Your task to perform on an android device: Search for the best-rated coffee table on Crate & Barrel Image 0: 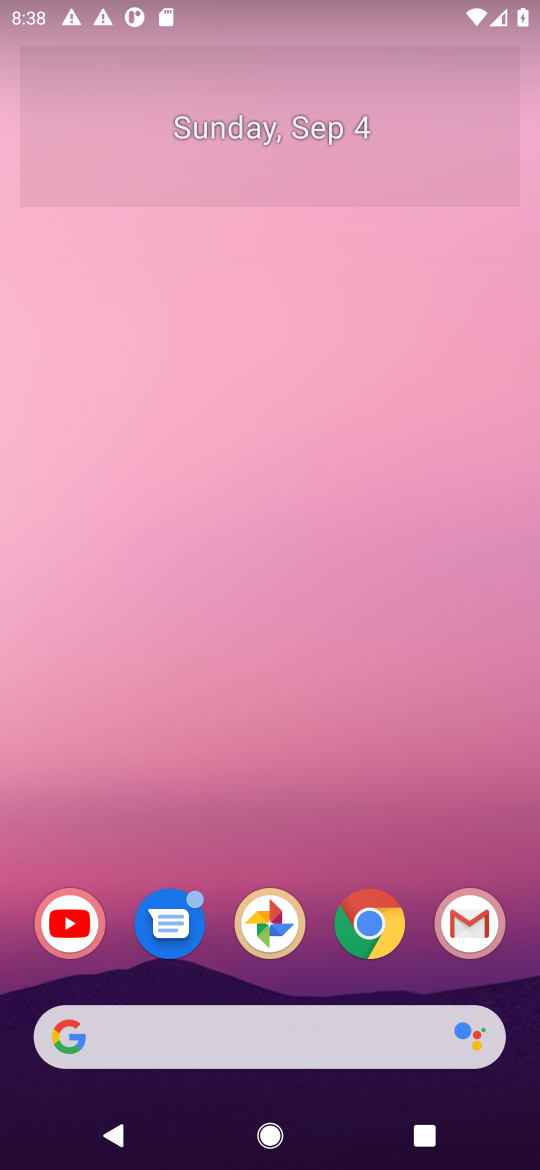
Step 0: click (365, 952)
Your task to perform on an android device: Search for the best-rated coffee table on Crate & Barrel Image 1: 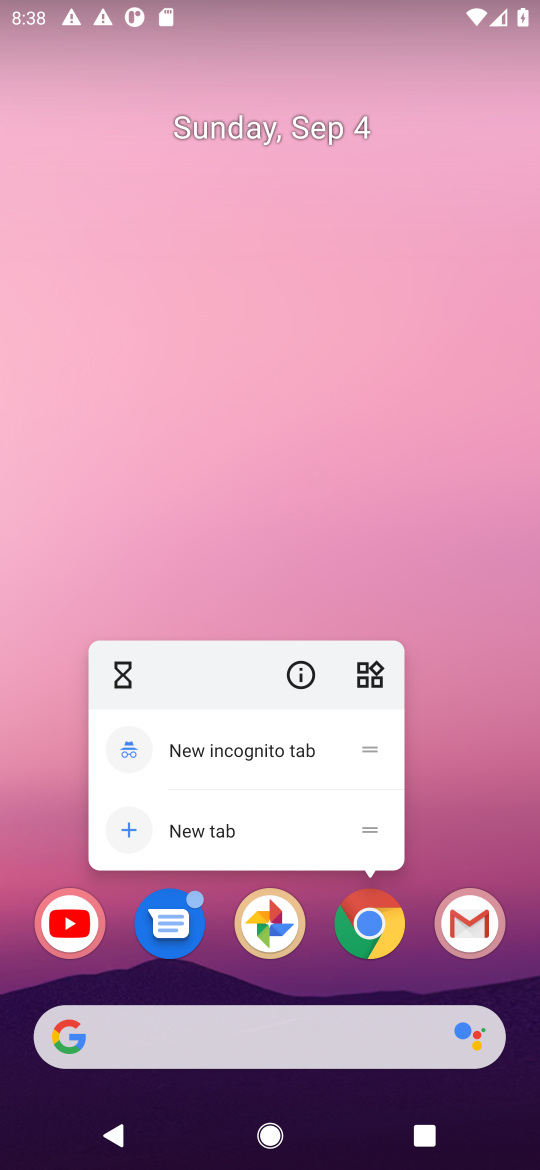
Step 1: click (365, 952)
Your task to perform on an android device: Search for the best-rated coffee table on Crate & Barrel Image 2: 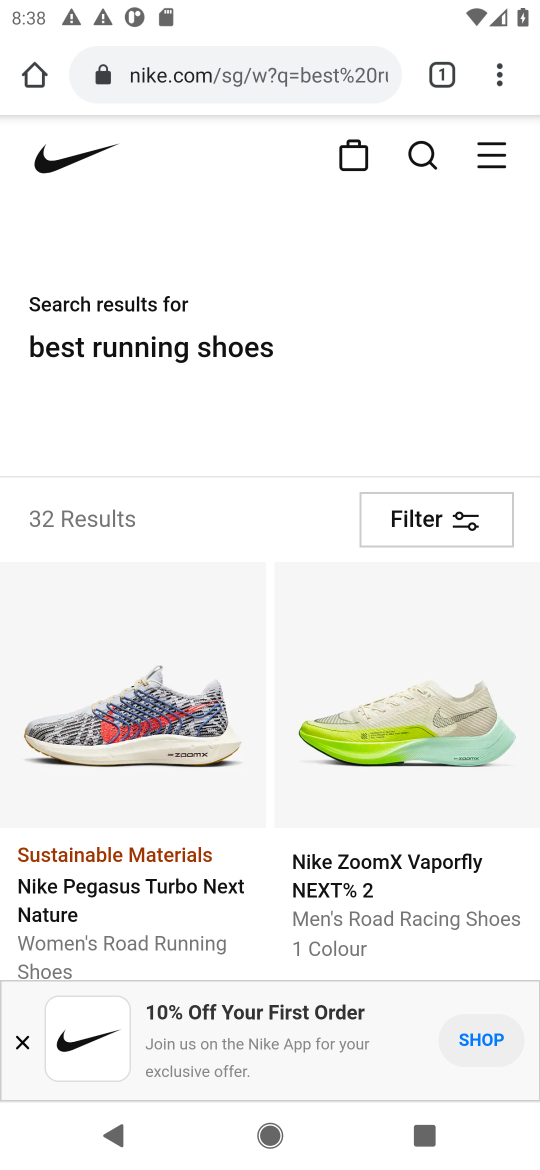
Step 2: click (430, 134)
Your task to perform on an android device: Search for the best-rated coffee table on Crate & Barrel Image 3: 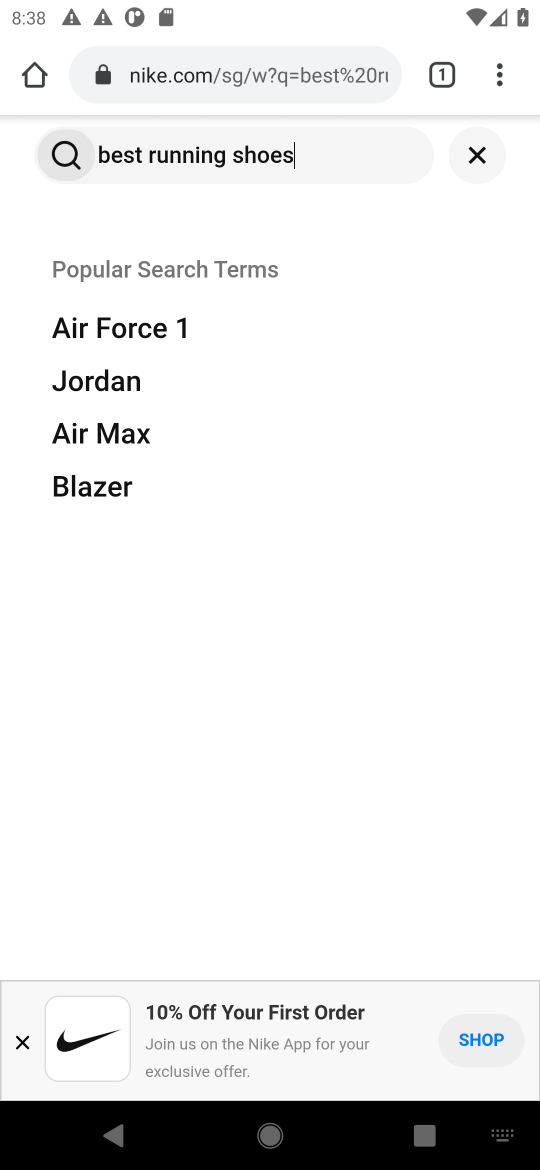
Step 3: click (480, 157)
Your task to perform on an android device: Search for the best-rated coffee table on Crate & Barrel Image 4: 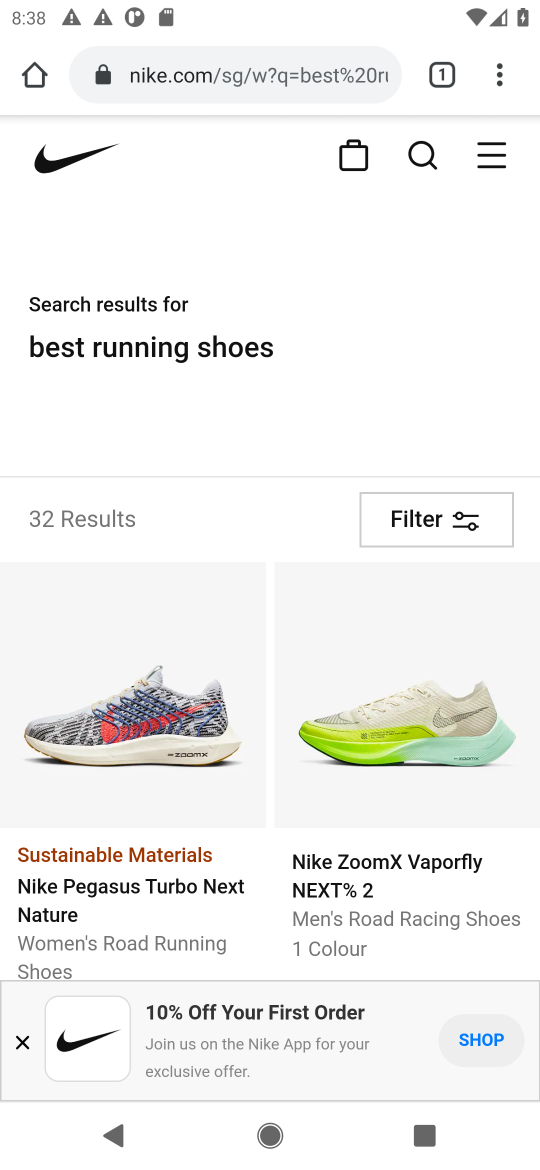
Step 4: click (341, 72)
Your task to perform on an android device: Search for the best-rated coffee table on Crate & Barrel Image 5: 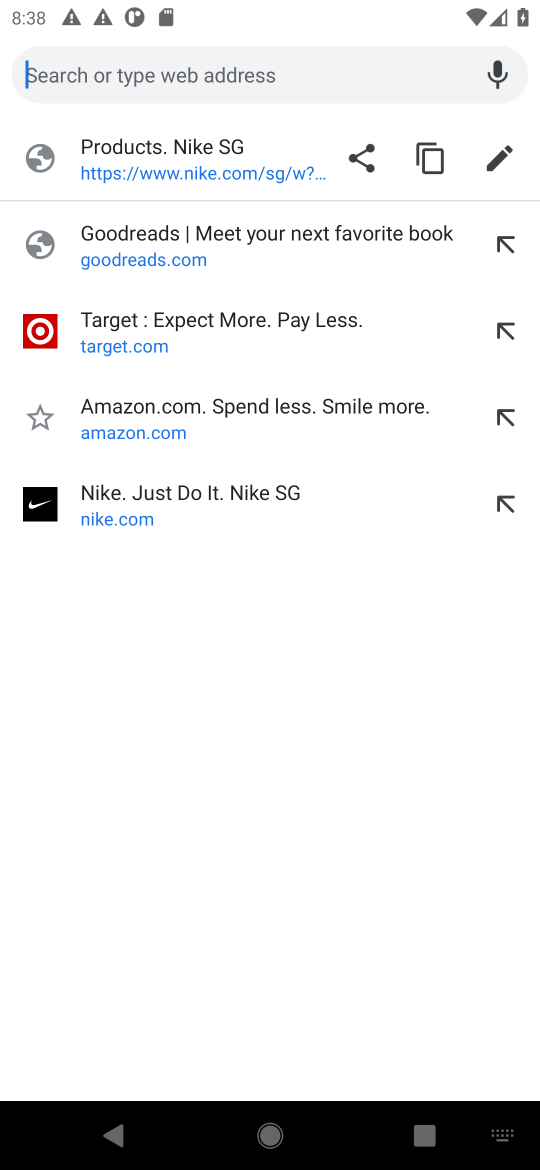
Step 5: type "crate and barrel"
Your task to perform on an android device: Search for the best-rated coffee table on Crate & Barrel Image 6: 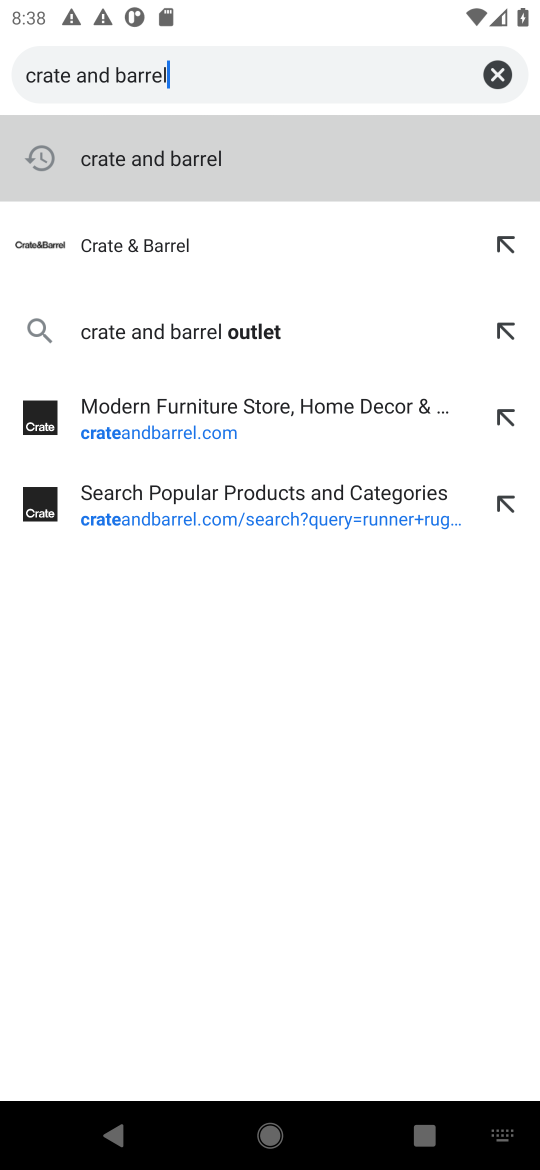
Step 6: click (199, 408)
Your task to perform on an android device: Search for the best-rated coffee table on Crate & Barrel Image 7: 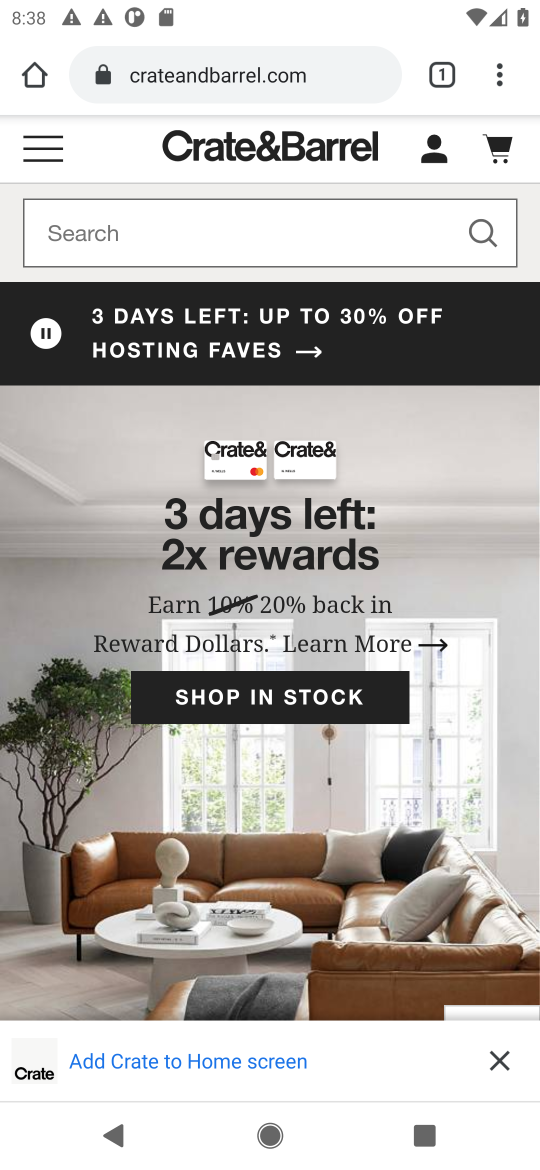
Step 7: click (395, 236)
Your task to perform on an android device: Search for the best-rated coffee table on Crate & Barrel Image 8: 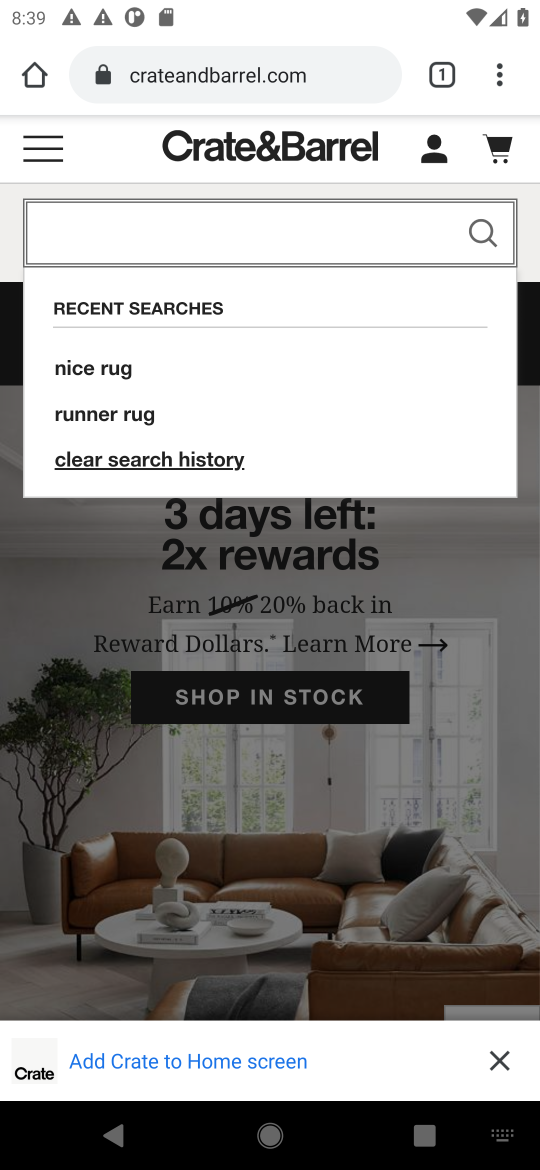
Step 8: type "best rated coffee table"
Your task to perform on an android device: Search for the best-rated coffee table on Crate & Barrel Image 9: 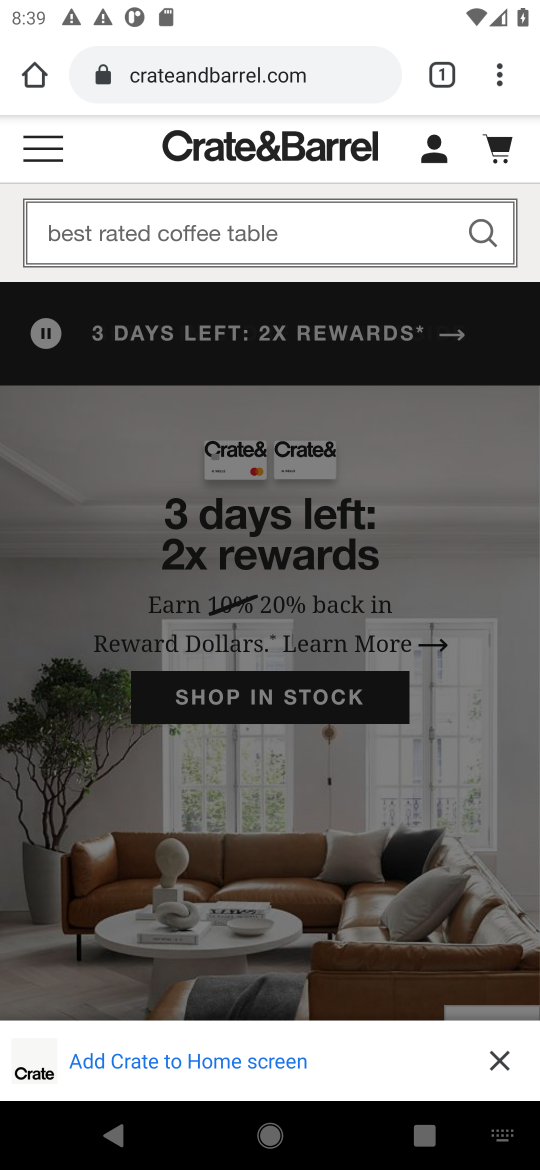
Step 9: click (492, 233)
Your task to perform on an android device: Search for the best-rated coffee table on Crate & Barrel Image 10: 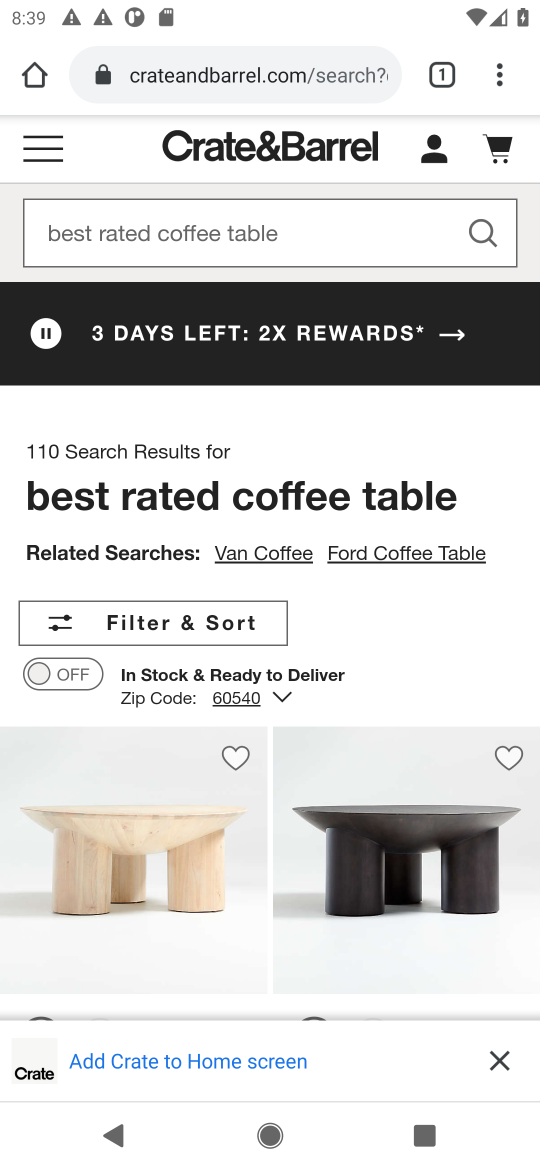
Step 10: task complete